Your task to perform on an android device: change alarm snooze length Image 0: 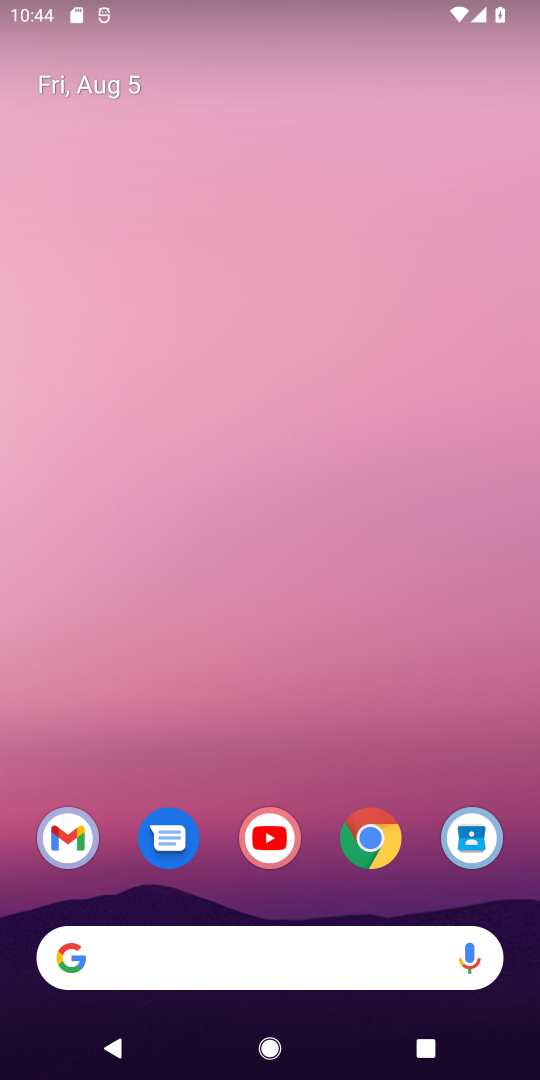
Step 0: drag from (366, 704) to (385, 280)
Your task to perform on an android device: change alarm snooze length Image 1: 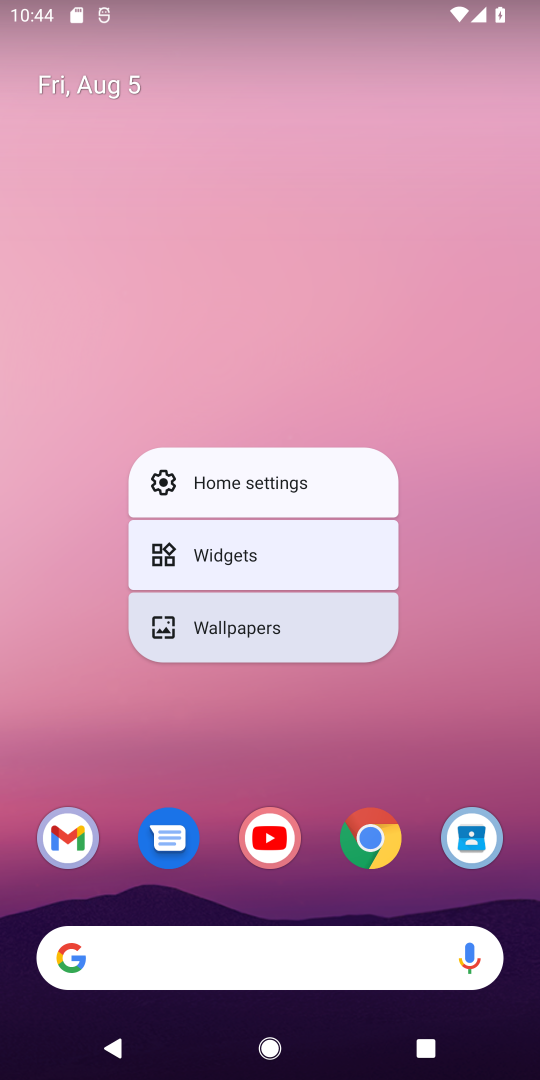
Step 1: click (457, 666)
Your task to perform on an android device: change alarm snooze length Image 2: 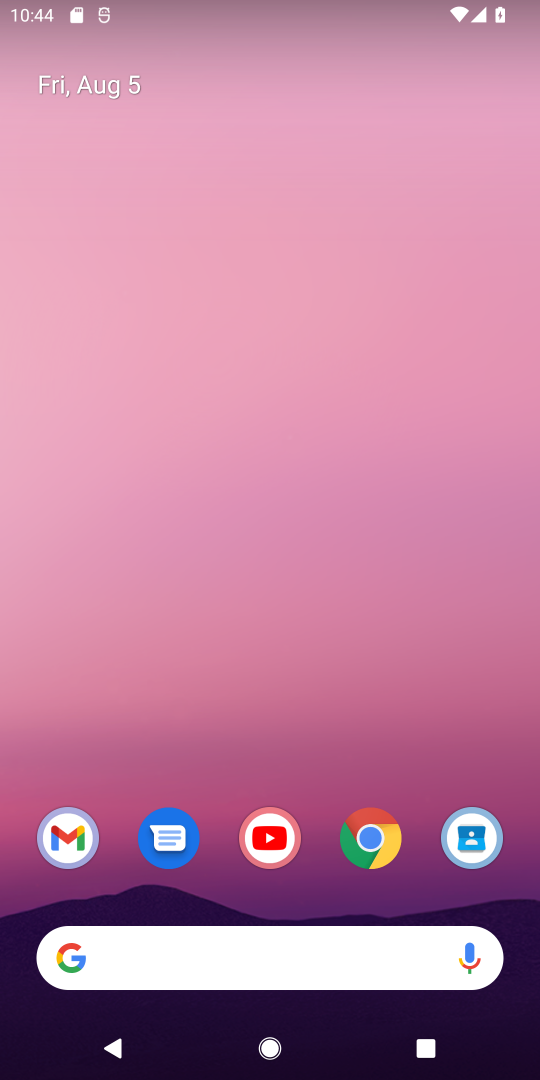
Step 2: drag from (438, 763) to (341, 227)
Your task to perform on an android device: change alarm snooze length Image 3: 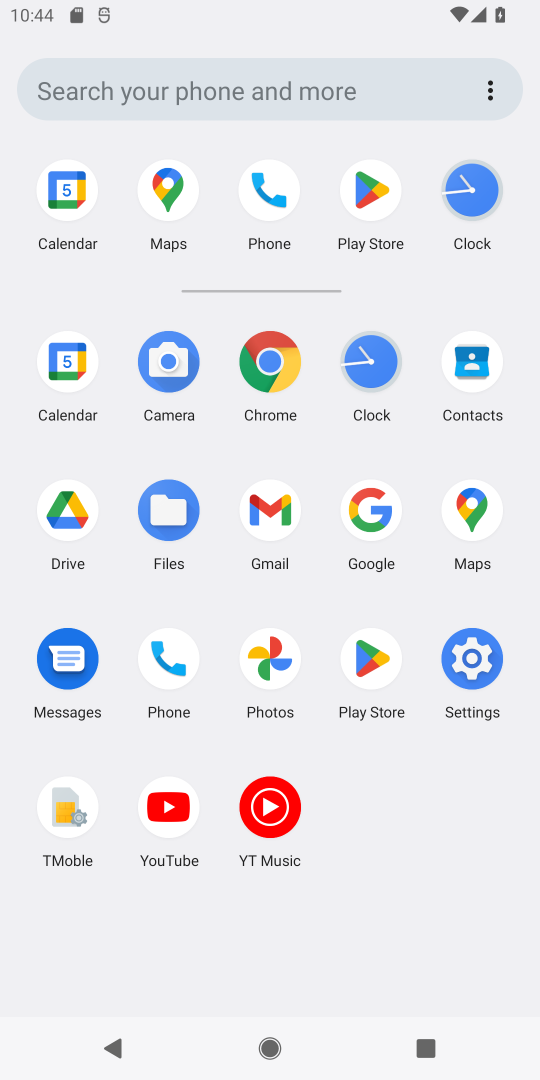
Step 3: click (460, 202)
Your task to perform on an android device: change alarm snooze length Image 4: 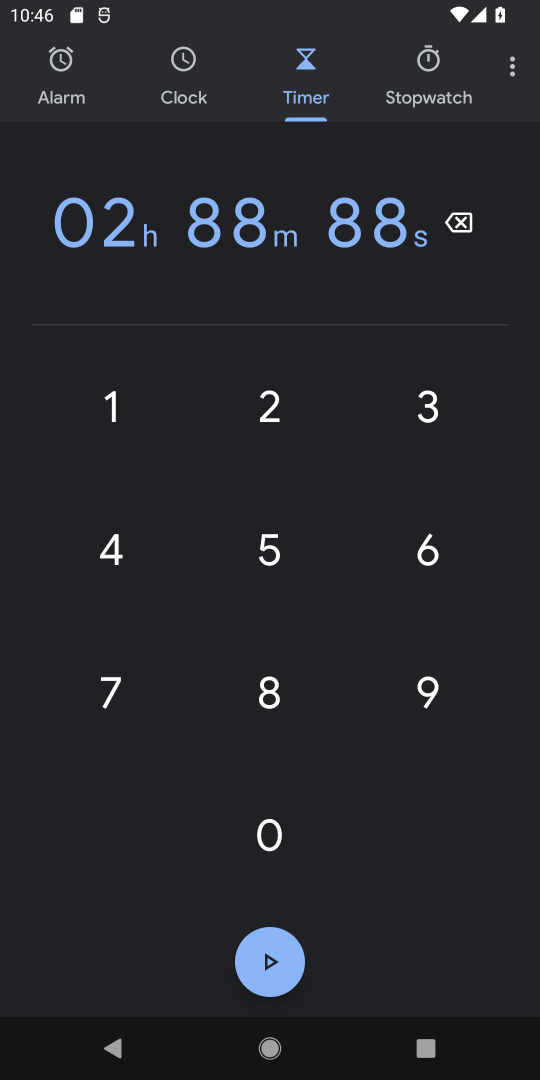
Step 4: click (503, 70)
Your task to perform on an android device: change alarm snooze length Image 5: 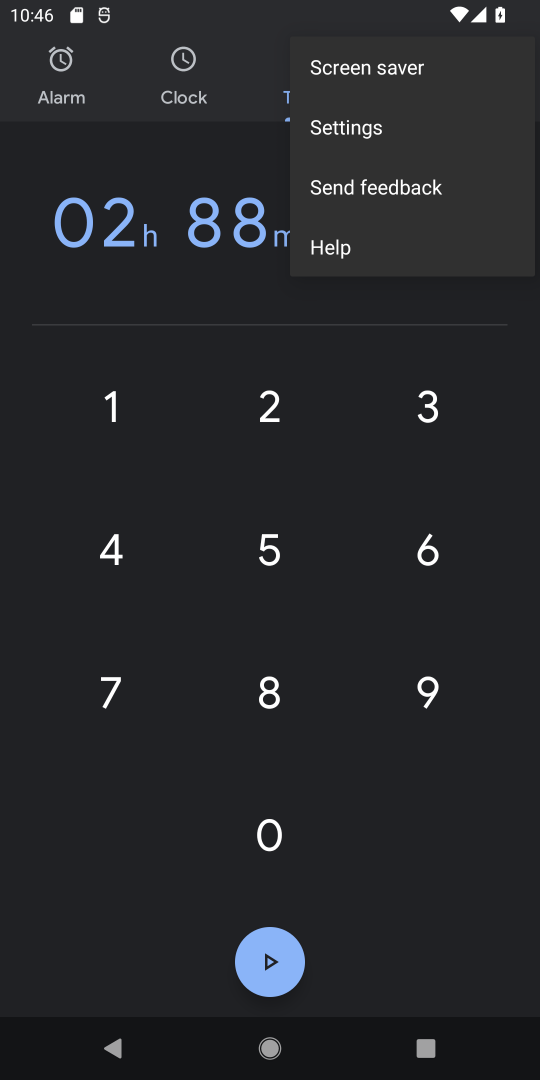
Step 5: click (425, 144)
Your task to perform on an android device: change alarm snooze length Image 6: 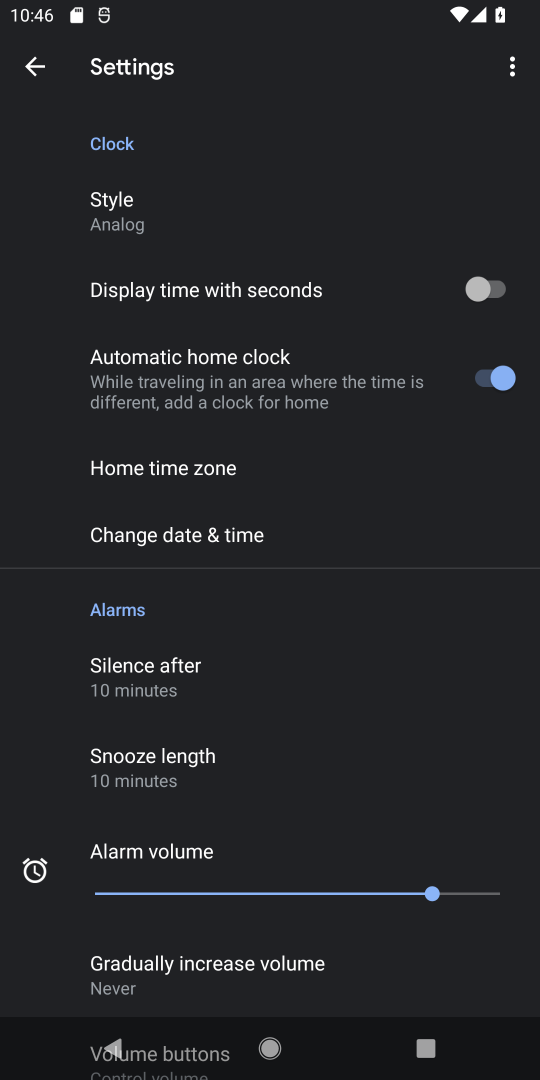
Step 6: click (181, 769)
Your task to perform on an android device: change alarm snooze length Image 7: 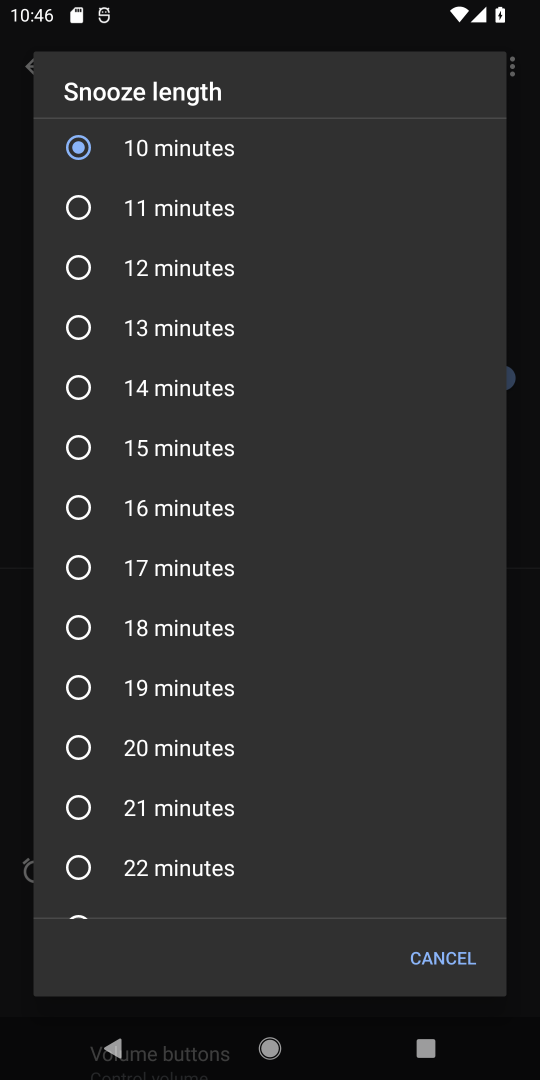
Step 7: click (138, 229)
Your task to perform on an android device: change alarm snooze length Image 8: 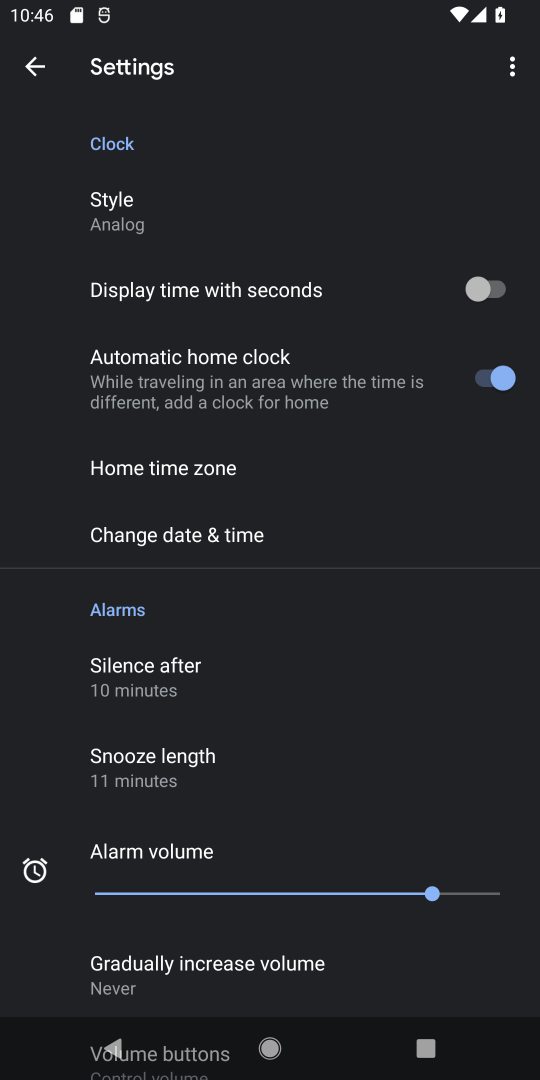
Step 8: task complete